Your task to perform on an android device: Do I have any events this weekend? Image 0: 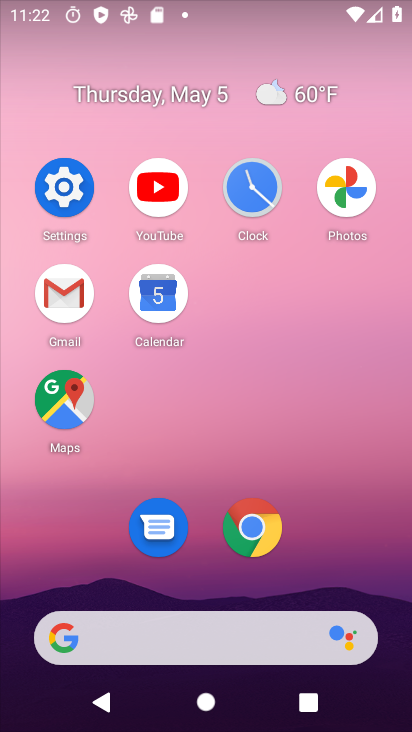
Step 0: click (157, 269)
Your task to perform on an android device: Do I have any events this weekend? Image 1: 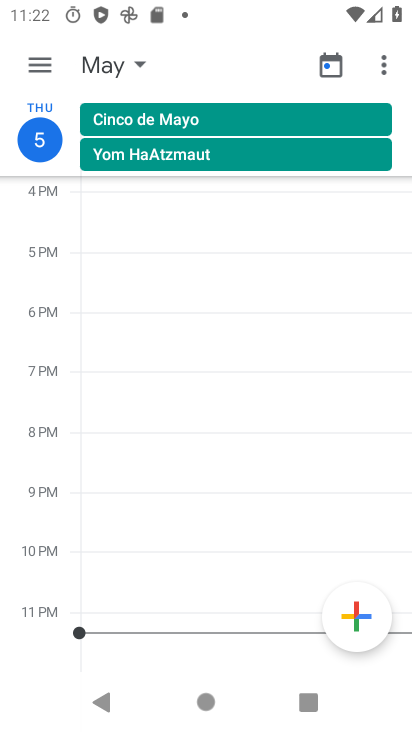
Step 1: click (52, 67)
Your task to perform on an android device: Do I have any events this weekend? Image 2: 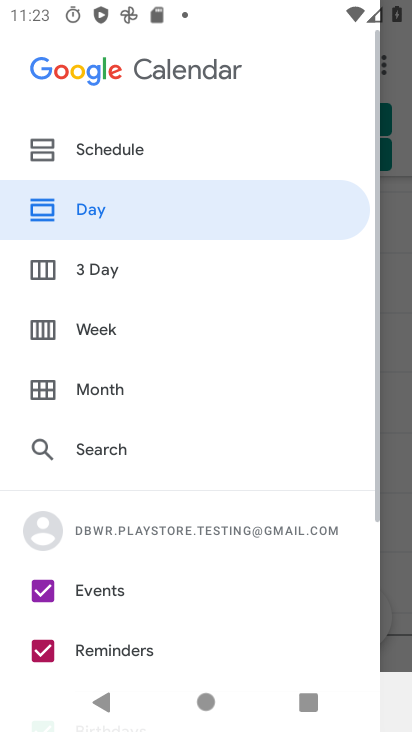
Step 2: click (159, 327)
Your task to perform on an android device: Do I have any events this weekend? Image 3: 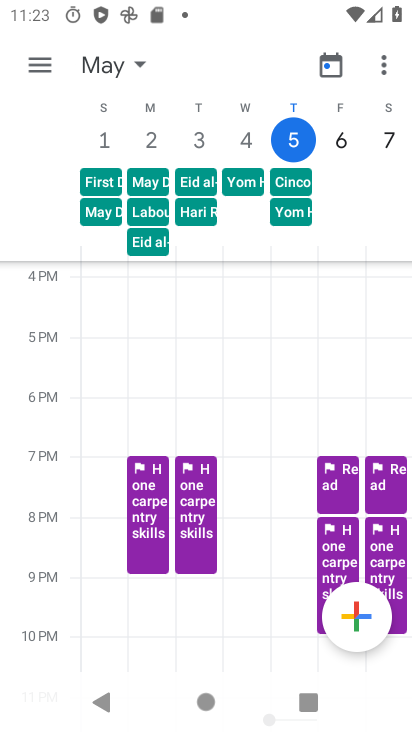
Step 3: click (386, 145)
Your task to perform on an android device: Do I have any events this weekend? Image 4: 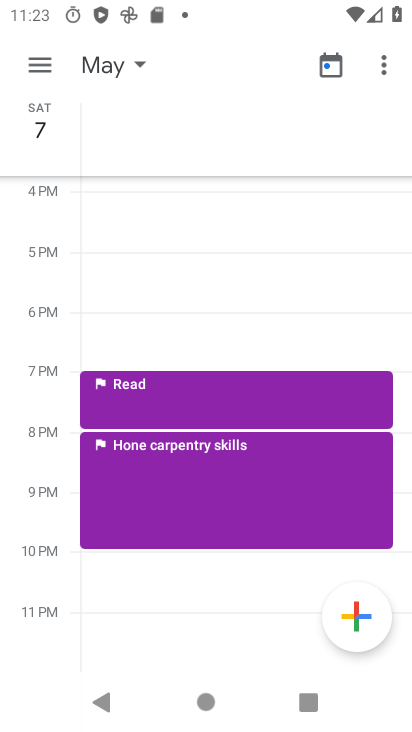
Step 4: task complete